Your task to perform on an android device: turn on improve location accuracy Image 0: 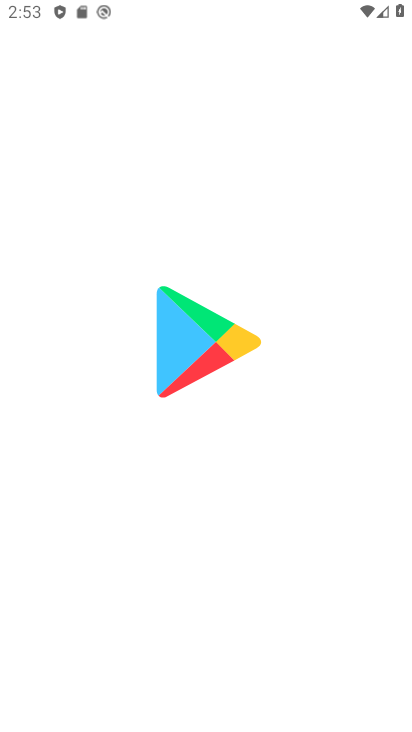
Step 0: drag from (189, 586) to (411, 272)
Your task to perform on an android device: turn on improve location accuracy Image 1: 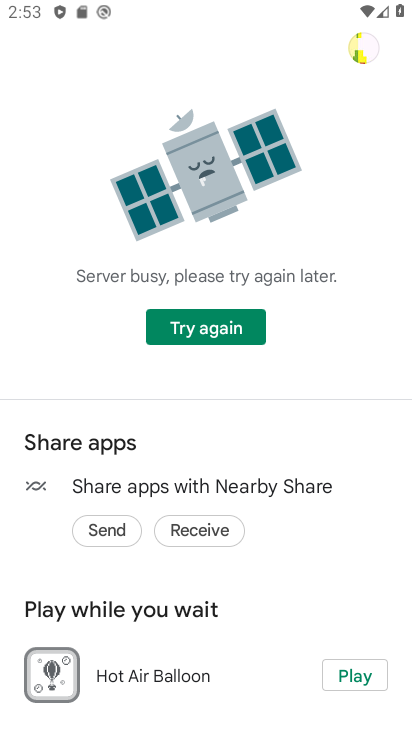
Step 1: press home button
Your task to perform on an android device: turn on improve location accuracy Image 2: 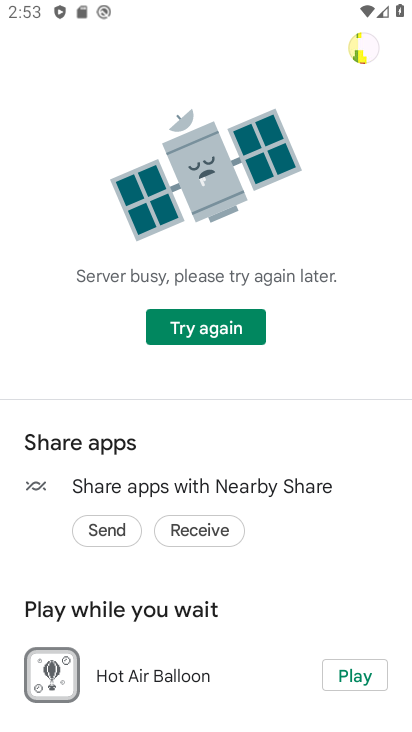
Step 2: drag from (411, 272) to (411, 531)
Your task to perform on an android device: turn on improve location accuracy Image 3: 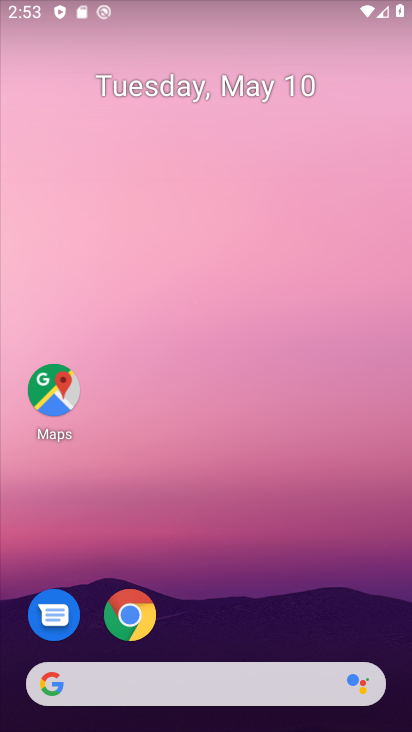
Step 3: drag from (335, 590) to (307, 196)
Your task to perform on an android device: turn on improve location accuracy Image 4: 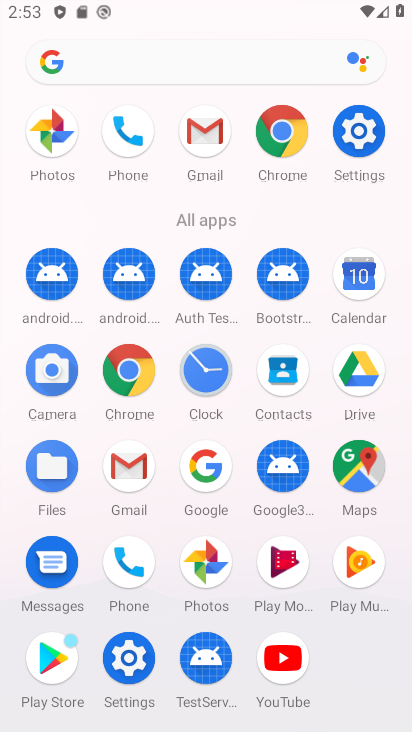
Step 4: click (364, 140)
Your task to perform on an android device: turn on improve location accuracy Image 5: 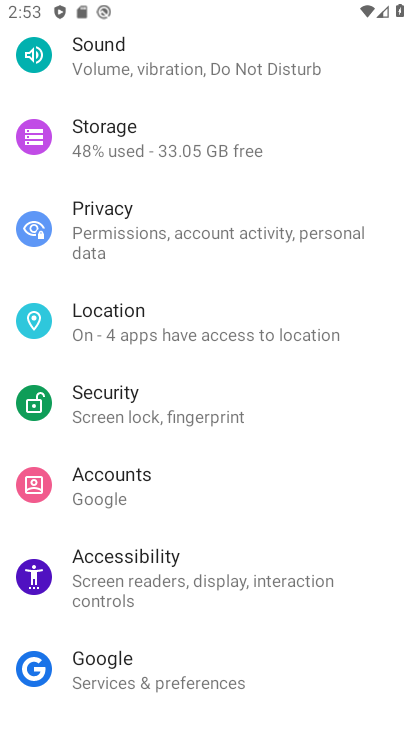
Step 5: drag from (248, 158) to (249, 584)
Your task to perform on an android device: turn on improve location accuracy Image 6: 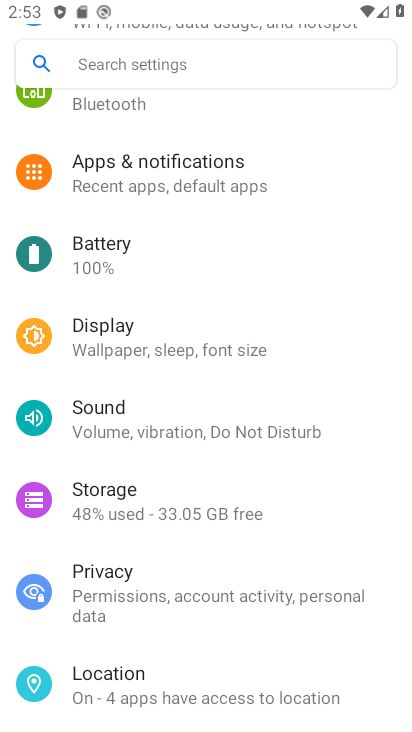
Step 6: click (275, 215)
Your task to perform on an android device: turn on improve location accuracy Image 7: 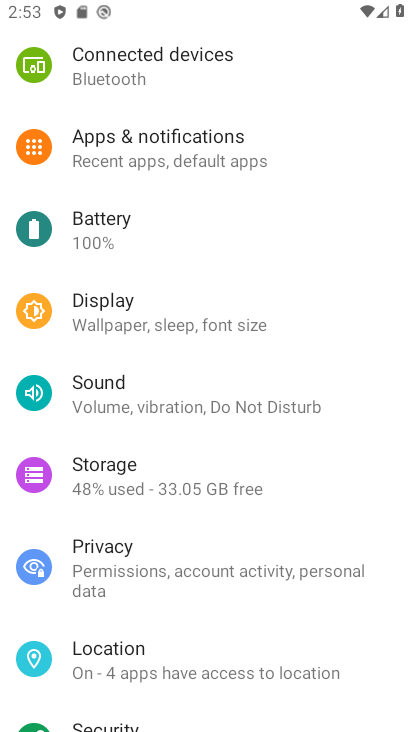
Step 7: click (227, 672)
Your task to perform on an android device: turn on improve location accuracy Image 8: 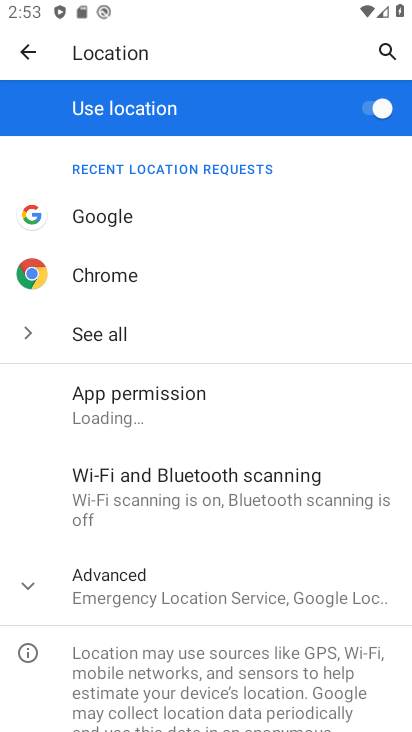
Step 8: click (24, 588)
Your task to perform on an android device: turn on improve location accuracy Image 9: 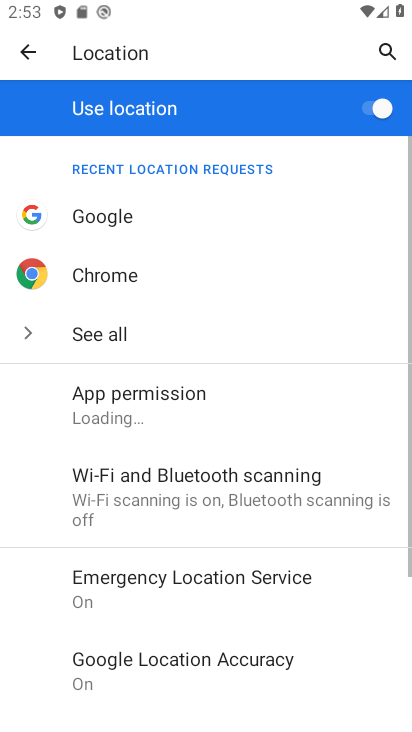
Step 9: drag from (136, 626) to (180, 368)
Your task to perform on an android device: turn on improve location accuracy Image 10: 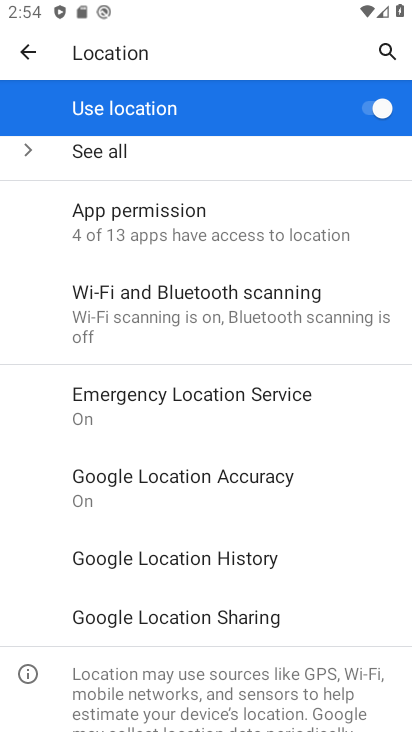
Step 10: click (174, 488)
Your task to perform on an android device: turn on improve location accuracy Image 11: 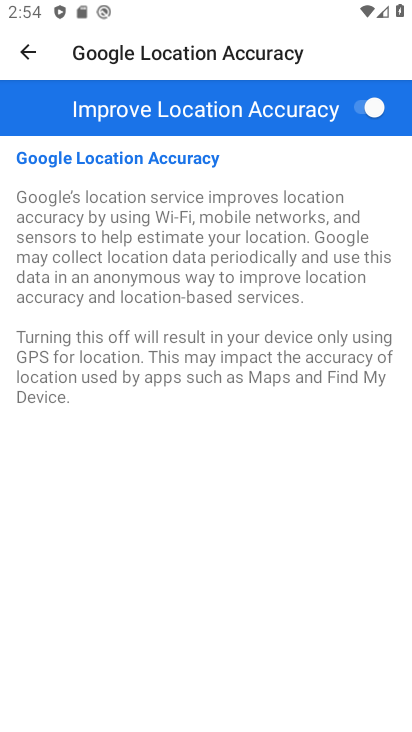
Step 11: task complete